Your task to perform on an android device: See recent photos Image 0: 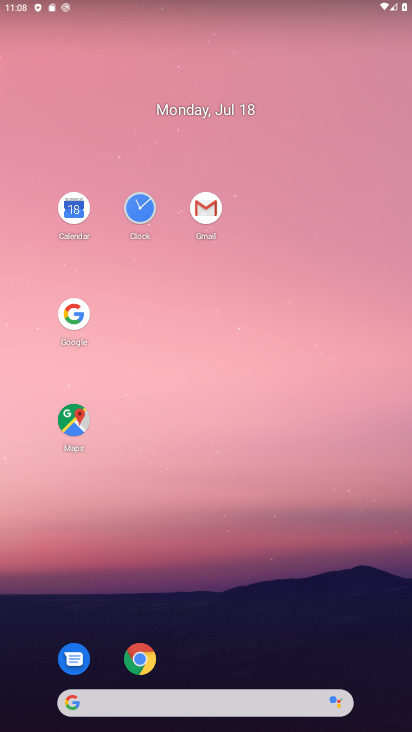
Step 0: drag from (272, 639) to (267, 191)
Your task to perform on an android device: See recent photos Image 1: 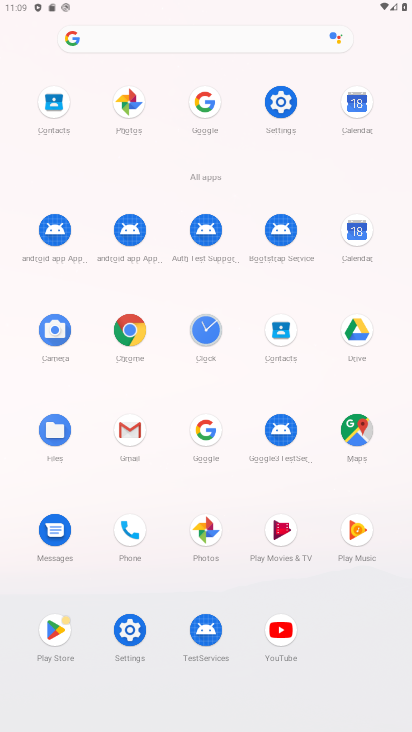
Step 1: click (216, 526)
Your task to perform on an android device: See recent photos Image 2: 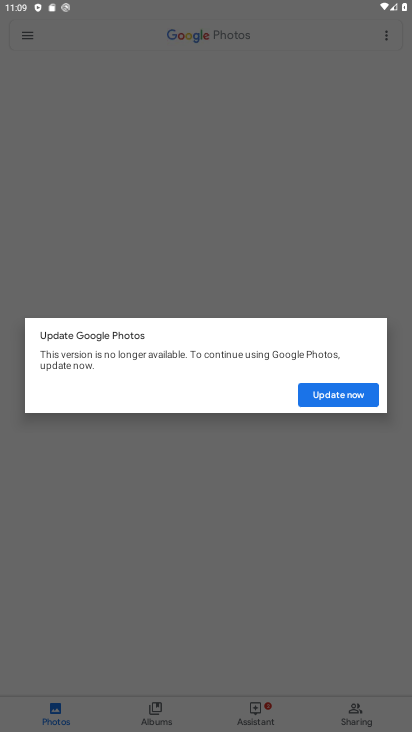
Step 2: click (332, 404)
Your task to perform on an android device: See recent photos Image 3: 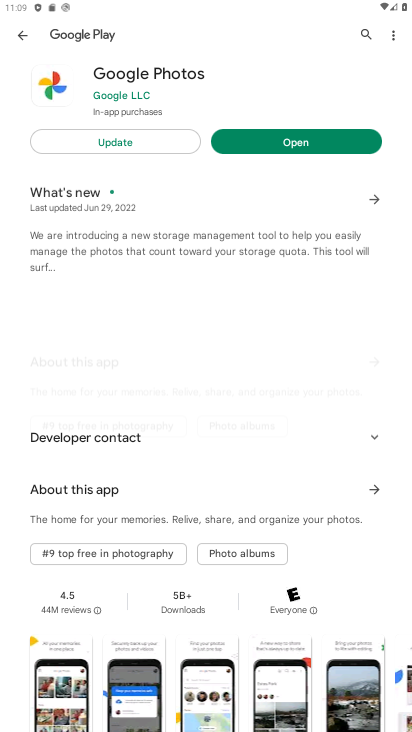
Step 3: click (135, 142)
Your task to perform on an android device: See recent photos Image 4: 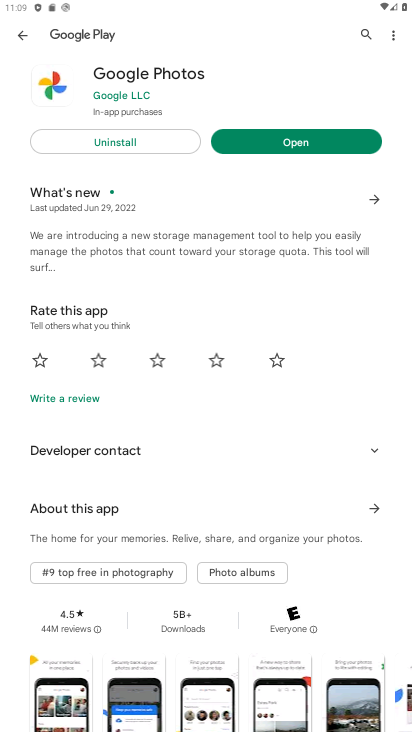
Step 4: click (316, 147)
Your task to perform on an android device: See recent photos Image 5: 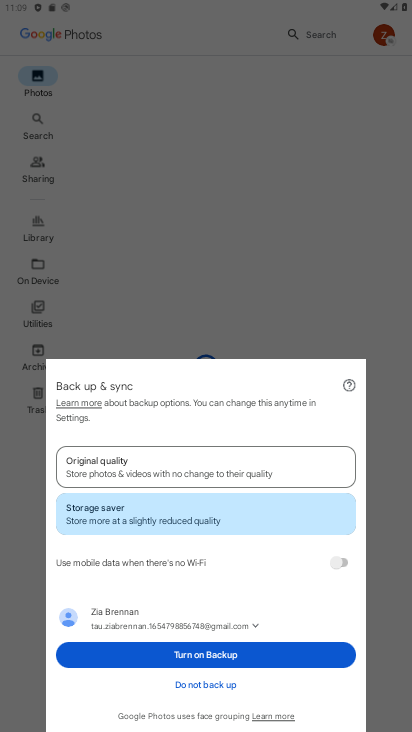
Step 5: click (202, 658)
Your task to perform on an android device: See recent photos Image 6: 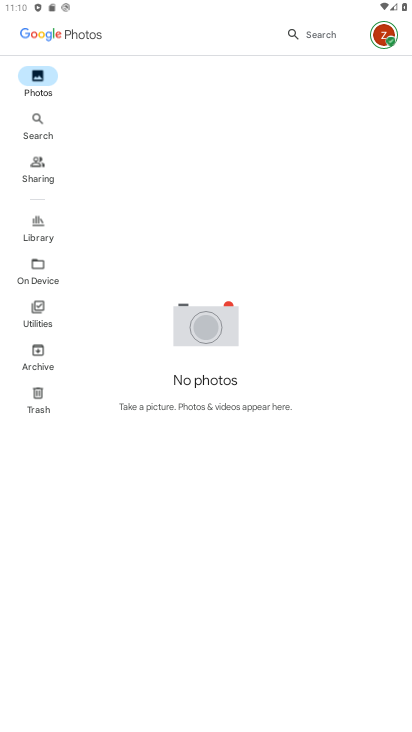
Step 6: task complete